Your task to perform on an android device: change your default location settings in chrome Image 0: 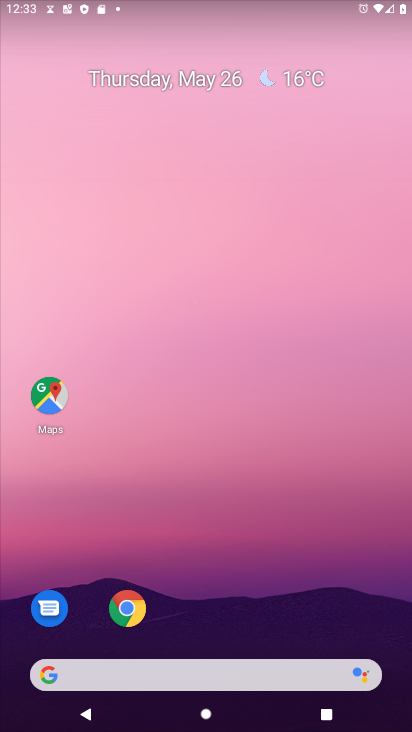
Step 0: click (123, 607)
Your task to perform on an android device: change your default location settings in chrome Image 1: 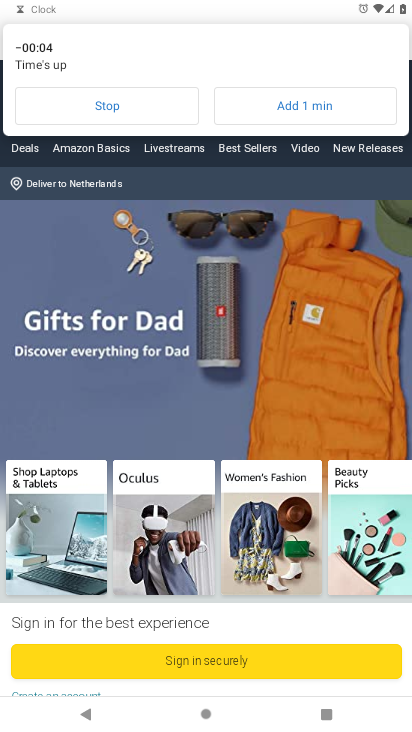
Step 1: click (156, 103)
Your task to perform on an android device: change your default location settings in chrome Image 2: 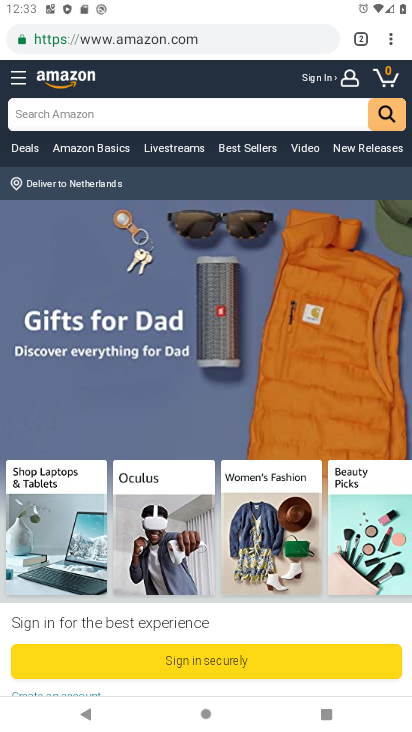
Step 2: click (392, 43)
Your task to perform on an android device: change your default location settings in chrome Image 3: 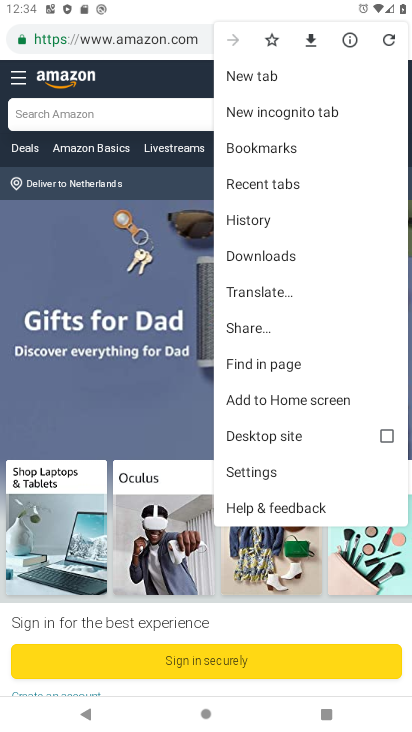
Step 3: click (263, 469)
Your task to perform on an android device: change your default location settings in chrome Image 4: 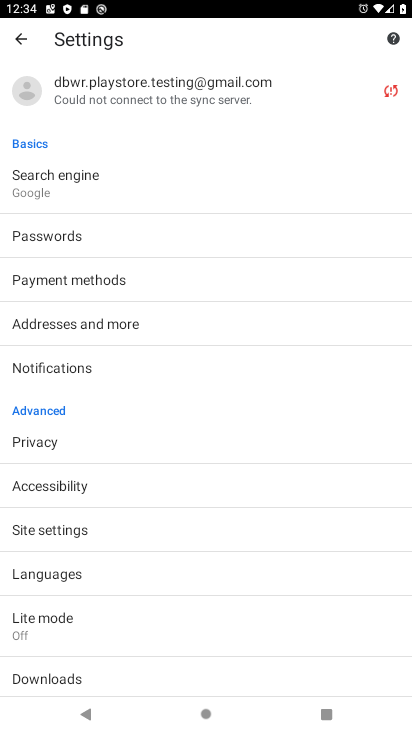
Step 4: click (66, 526)
Your task to perform on an android device: change your default location settings in chrome Image 5: 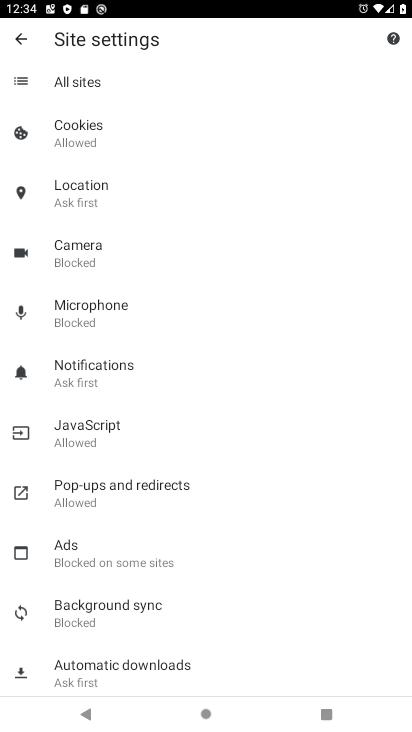
Step 5: click (66, 194)
Your task to perform on an android device: change your default location settings in chrome Image 6: 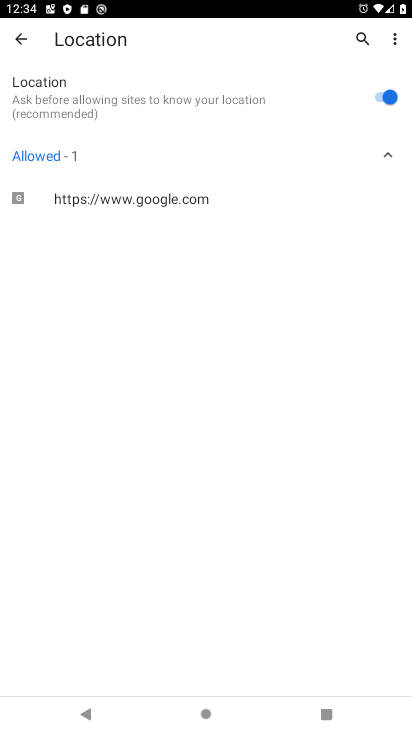
Step 6: click (386, 99)
Your task to perform on an android device: change your default location settings in chrome Image 7: 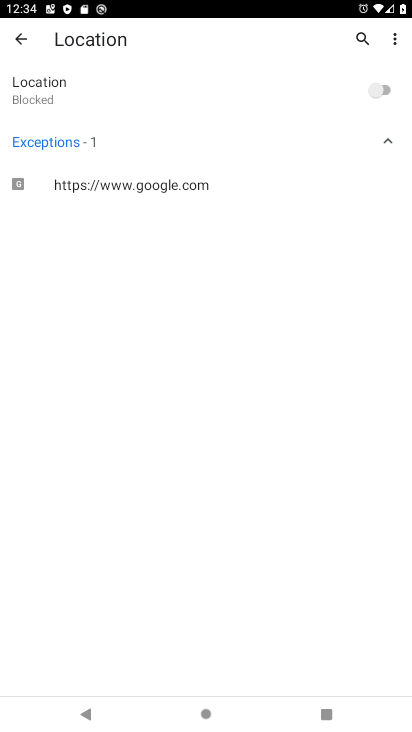
Step 7: task complete